Your task to perform on an android device: Open sound settings Image 0: 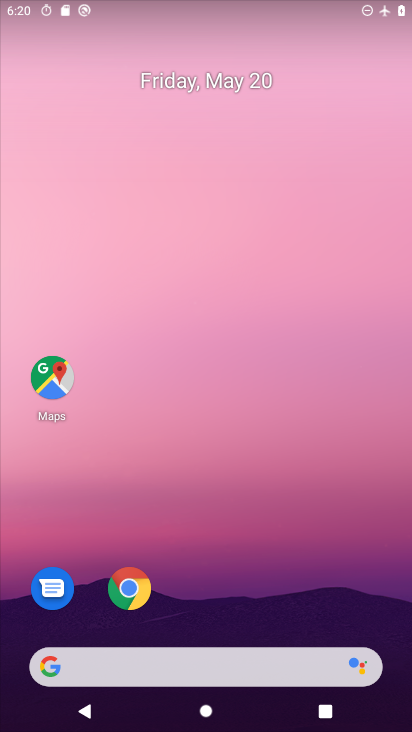
Step 0: drag from (202, 371) to (215, 156)
Your task to perform on an android device: Open sound settings Image 1: 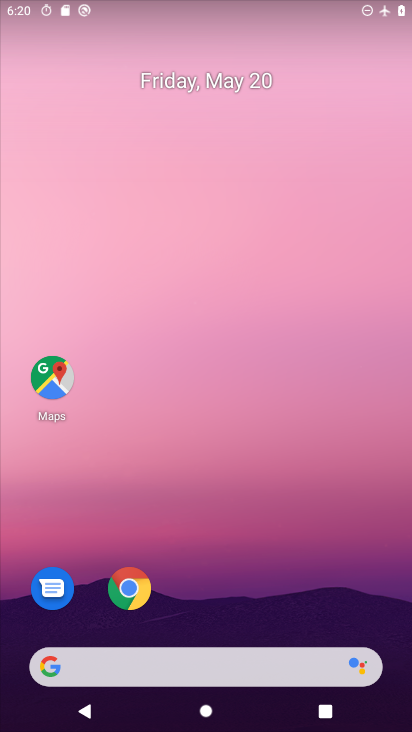
Step 1: drag from (221, 522) to (251, 45)
Your task to perform on an android device: Open sound settings Image 2: 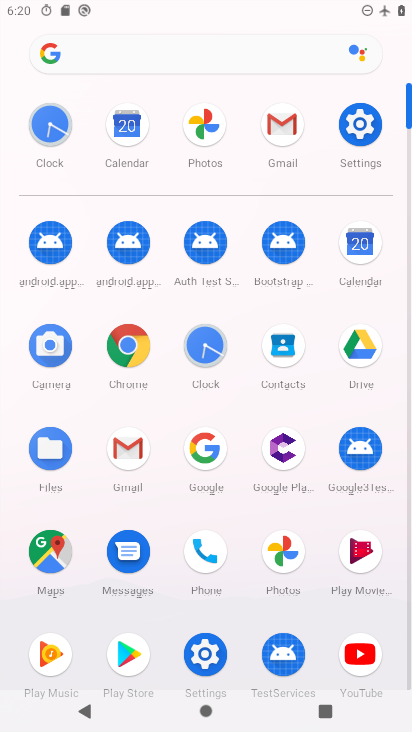
Step 2: click (360, 124)
Your task to perform on an android device: Open sound settings Image 3: 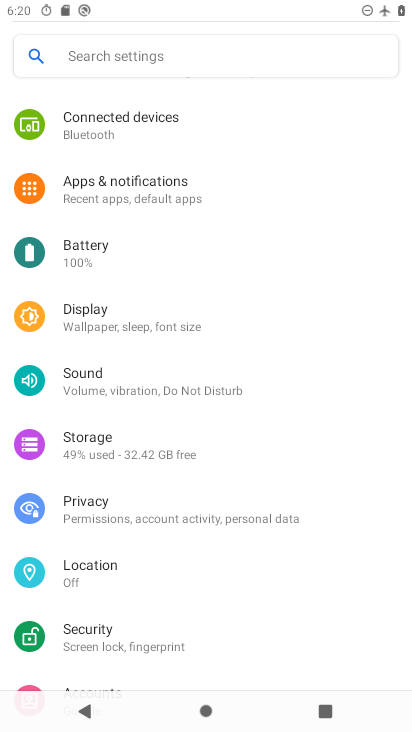
Step 3: click (111, 395)
Your task to perform on an android device: Open sound settings Image 4: 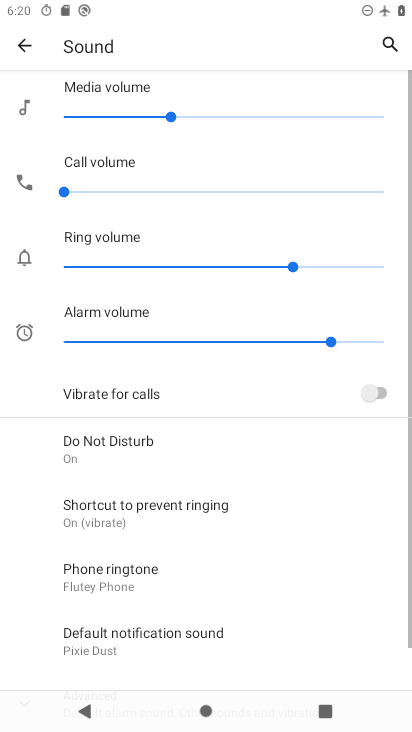
Step 4: task complete